Your task to perform on an android device: clear history in the chrome app Image 0: 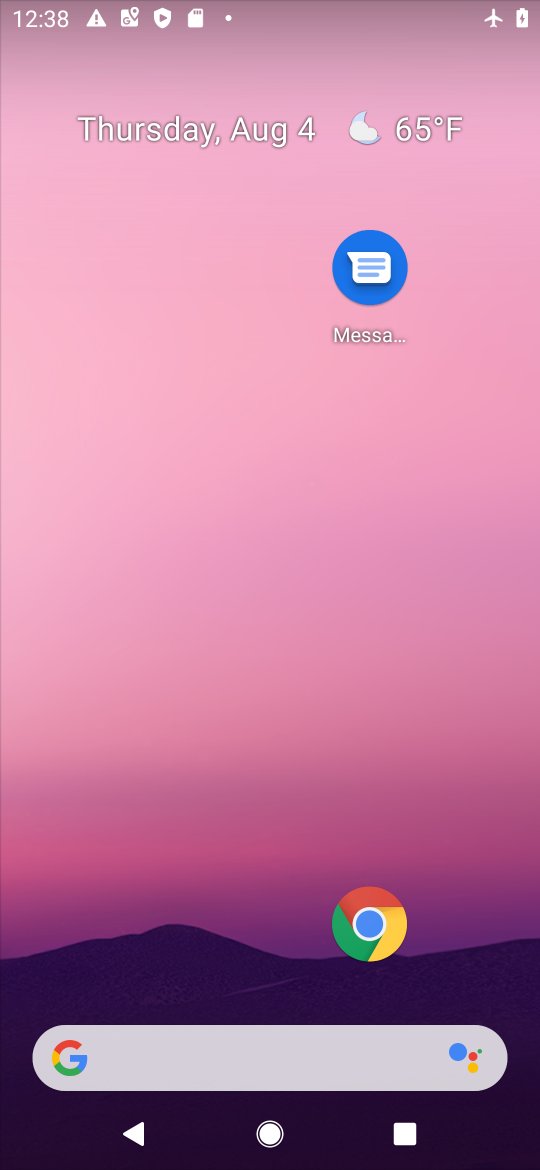
Step 0: click (362, 903)
Your task to perform on an android device: clear history in the chrome app Image 1: 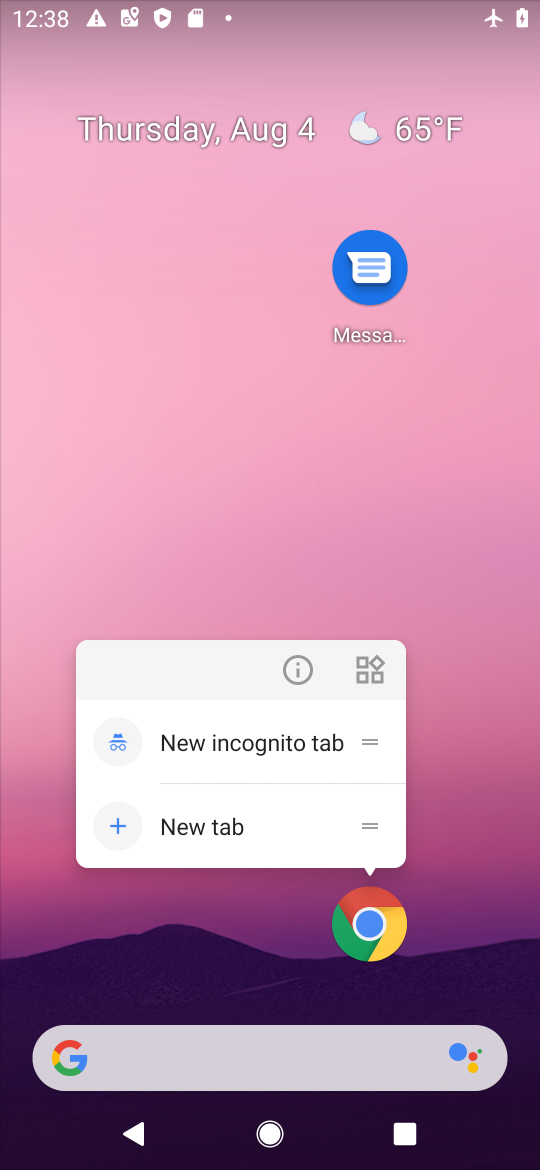
Step 1: click (362, 929)
Your task to perform on an android device: clear history in the chrome app Image 2: 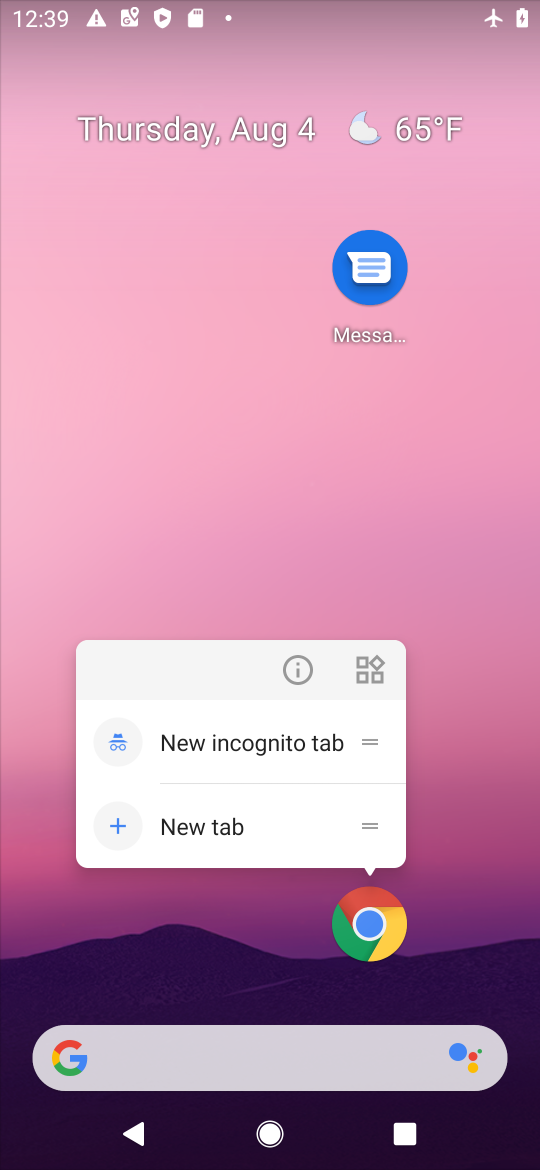
Step 2: click (357, 922)
Your task to perform on an android device: clear history in the chrome app Image 3: 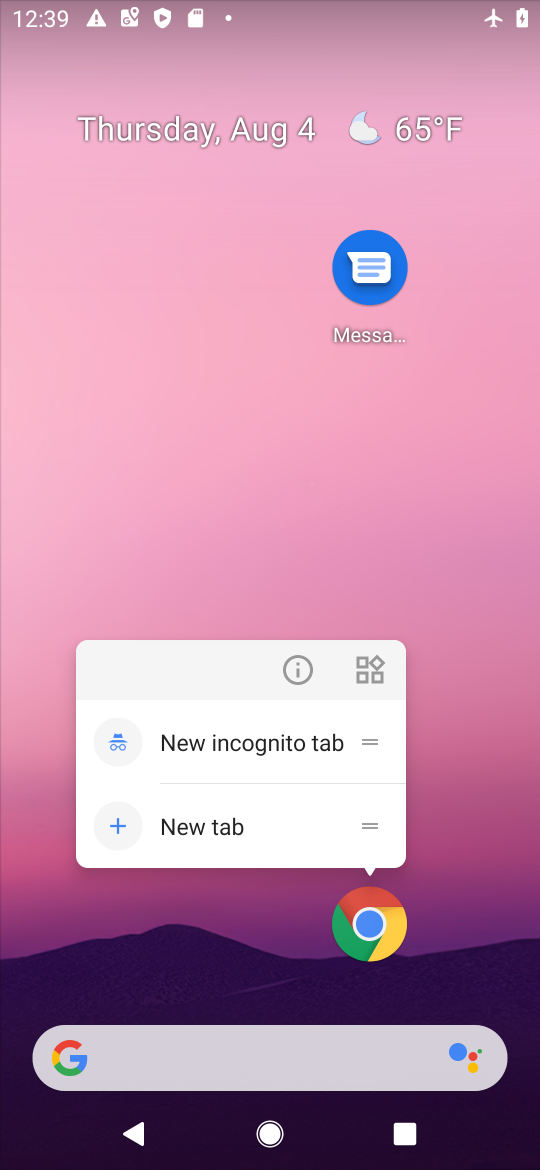
Step 3: click (384, 933)
Your task to perform on an android device: clear history in the chrome app Image 4: 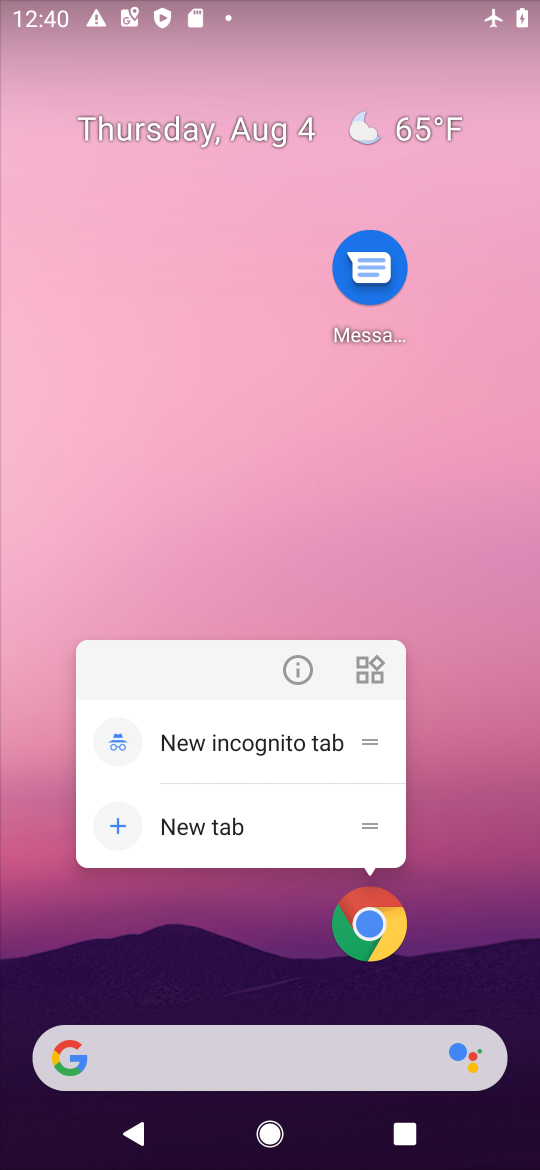
Step 4: task complete